Your task to perform on an android device: turn on priority inbox in the gmail app Image 0: 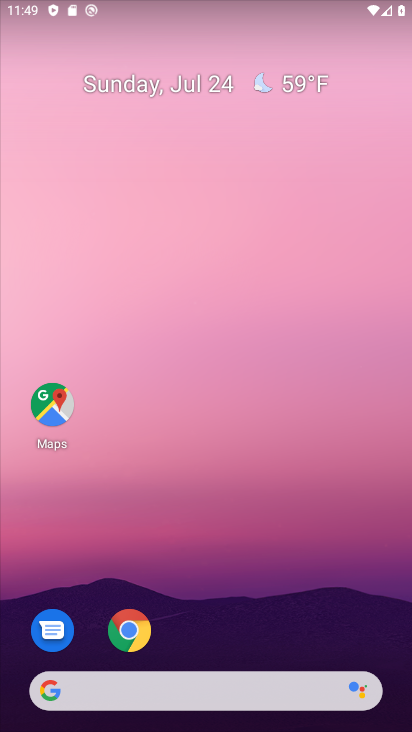
Step 0: drag from (237, 675) to (268, 259)
Your task to perform on an android device: turn on priority inbox in the gmail app Image 1: 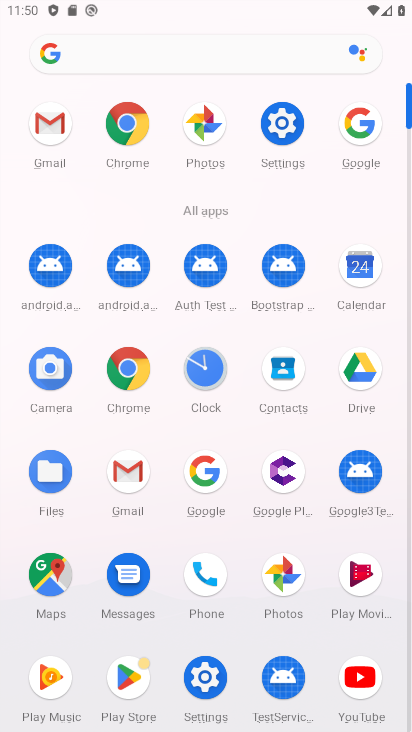
Step 1: click (47, 128)
Your task to perform on an android device: turn on priority inbox in the gmail app Image 2: 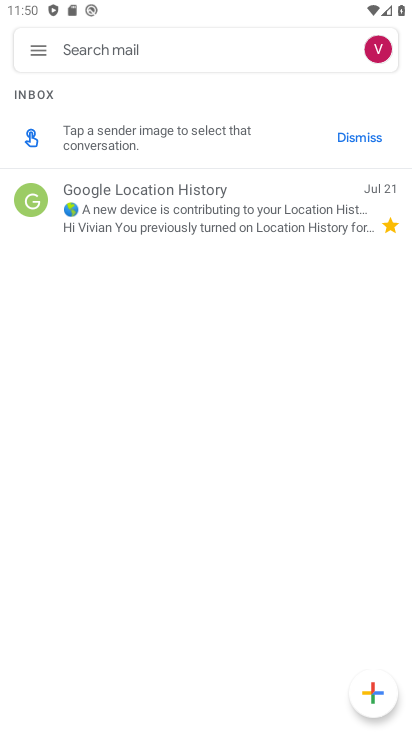
Step 2: click (39, 53)
Your task to perform on an android device: turn on priority inbox in the gmail app Image 3: 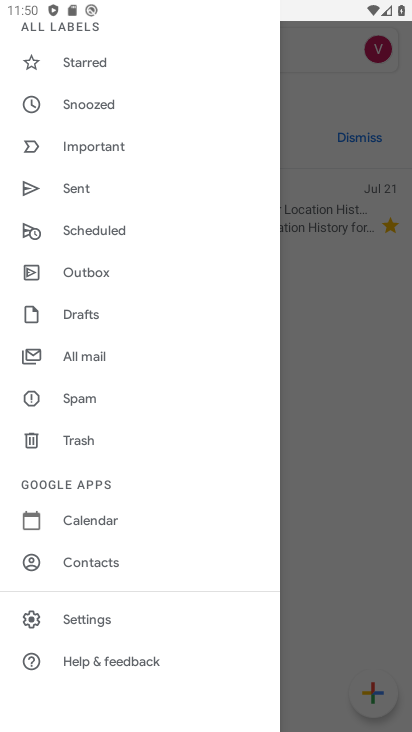
Step 3: click (95, 616)
Your task to perform on an android device: turn on priority inbox in the gmail app Image 4: 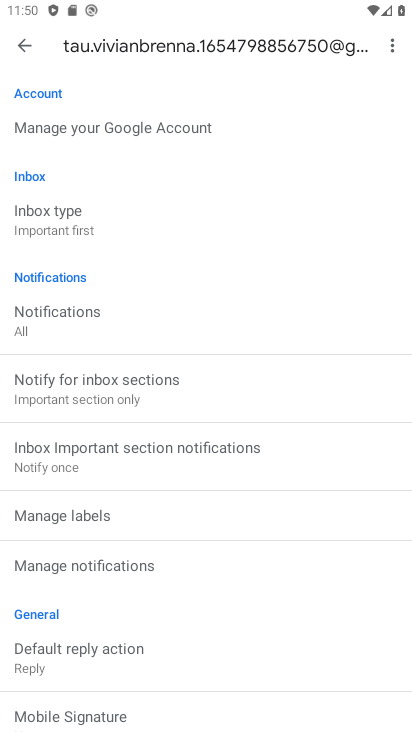
Step 4: click (76, 225)
Your task to perform on an android device: turn on priority inbox in the gmail app Image 5: 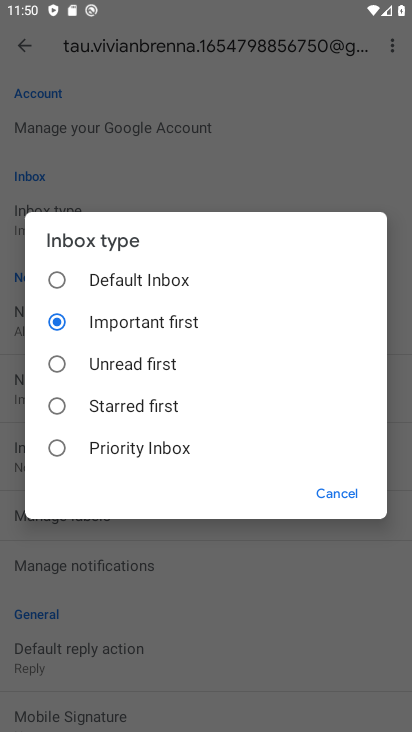
Step 5: click (141, 445)
Your task to perform on an android device: turn on priority inbox in the gmail app Image 6: 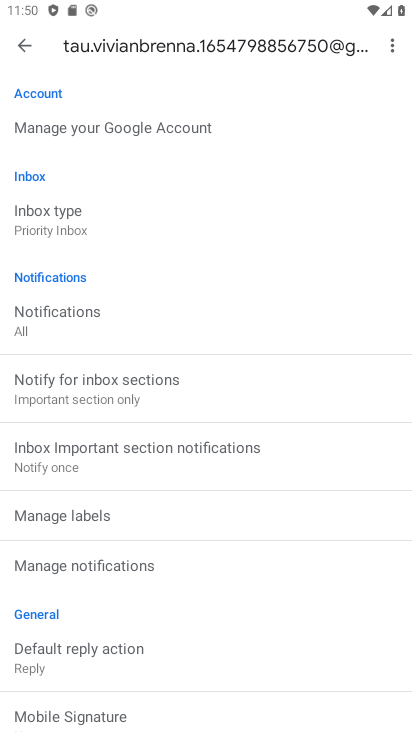
Step 6: drag from (150, 693) to (186, 285)
Your task to perform on an android device: turn on priority inbox in the gmail app Image 7: 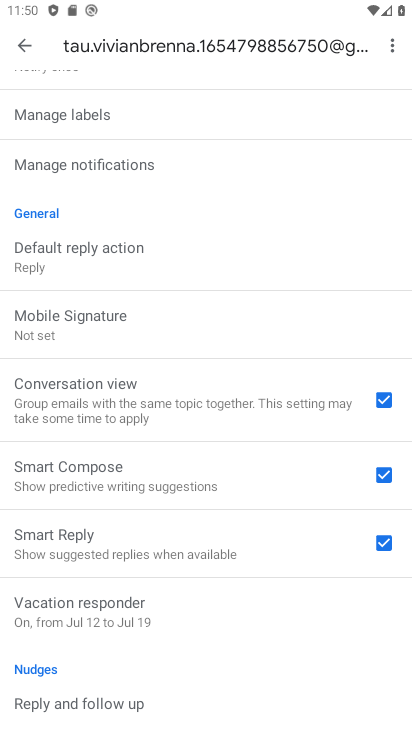
Step 7: click (196, 207)
Your task to perform on an android device: turn on priority inbox in the gmail app Image 8: 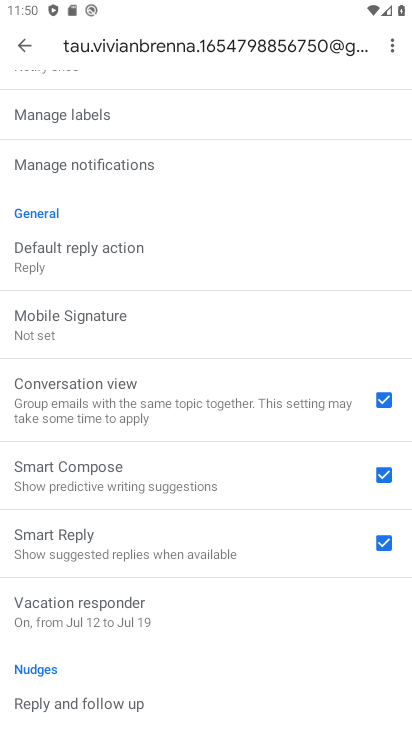
Step 8: task complete